Your task to perform on an android device: Show the shopping cart on bestbuy.com. Add usb-a to the cart on bestbuy.com, then select checkout. Image 0: 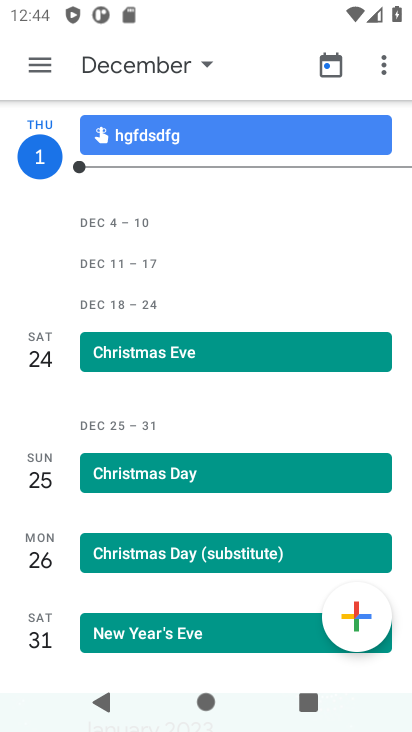
Step 0: press home button
Your task to perform on an android device: Show the shopping cart on bestbuy.com. Add usb-a to the cart on bestbuy.com, then select checkout. Image 1: 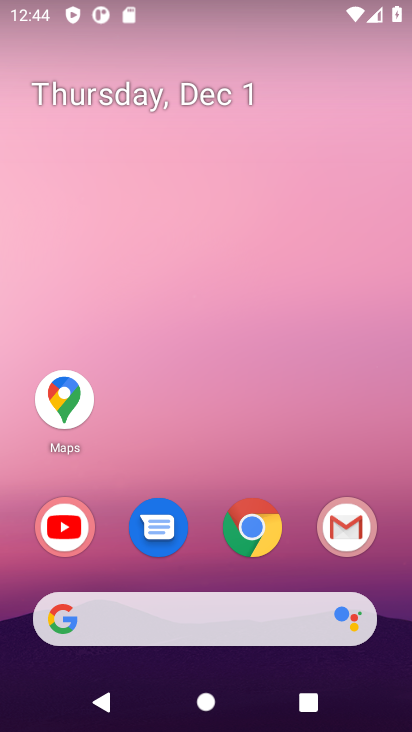
Step 1: click (259, 529)
Your task to perform on an android device: Show the shopping cart on bestbuy.com. Add usb-a to the cart on bestbuy.com, then select checkout. Image 2: 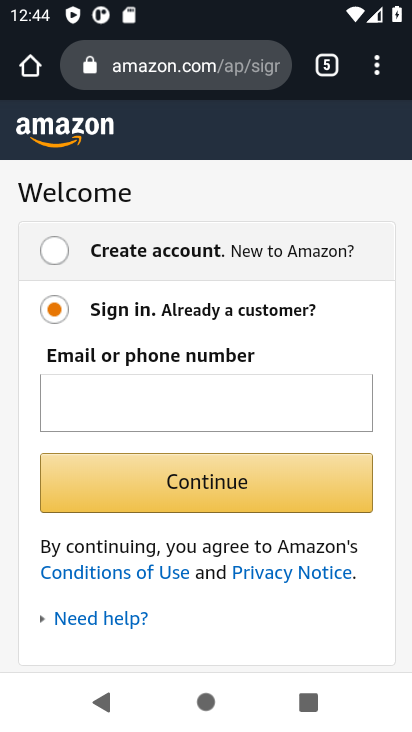
Step 2: click (202, 77)
Your task to perform on an android device: Show the shopping cart on bestbuy.com. Add usb-a to the cart on bestbuy.com, then select checkout. Image 3: 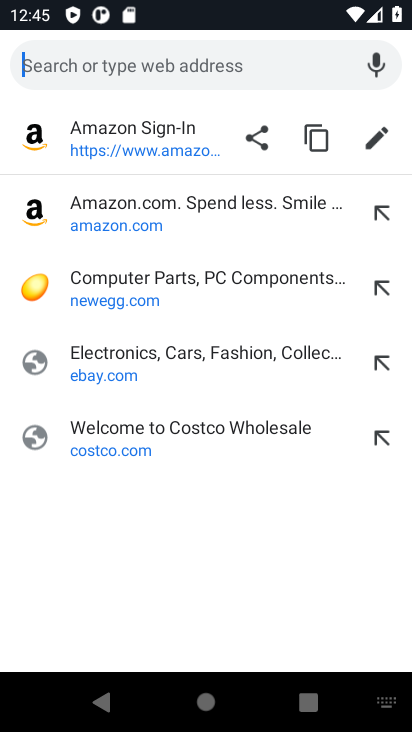
Step 3: type "bestbuy.com"
Your task to perform on an android device: Show the shopping cart on bestbuy.com. Add usb-a to the cart on bestbuy.com, then select checkout. Image 4: 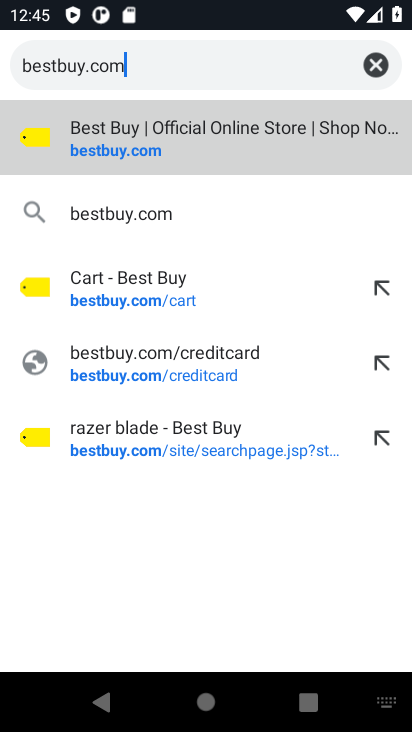
Step 4: click (104, 143)
Your task to perform on an android device: Show the shopping cart on bestbuy.com. Add usb-a to the cart on bestbuy.com, then select checkout. Image 5: 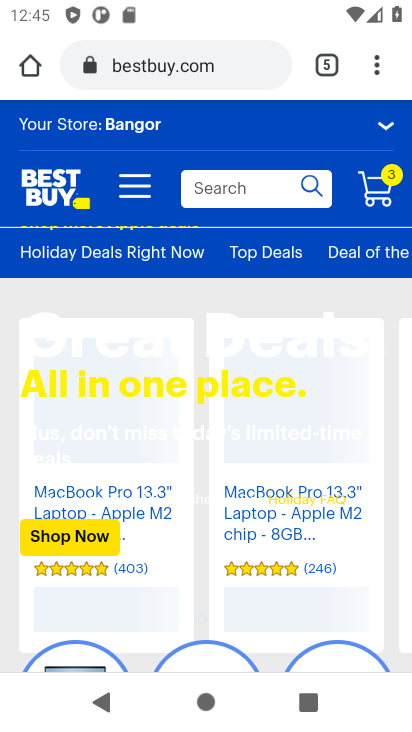
Step 5: click (377, 200)
Your task to perform on an android device: Show the shopping cart on bestbuy.com. Add usb-a to the cart on bestbuy.com, then select checkout. Image 6: 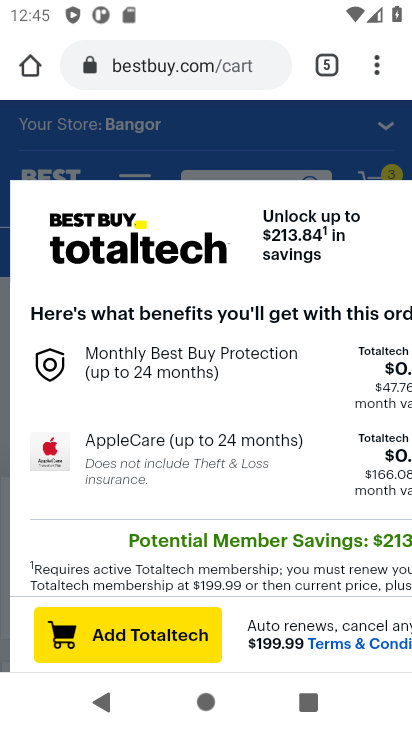
Step 6: click (251, 150)
Your task to perform on an android device: Show the shopping cart on bestbuy.com. Add usb-a to the cart on bestbuy.com, then select checkout. Image 7: 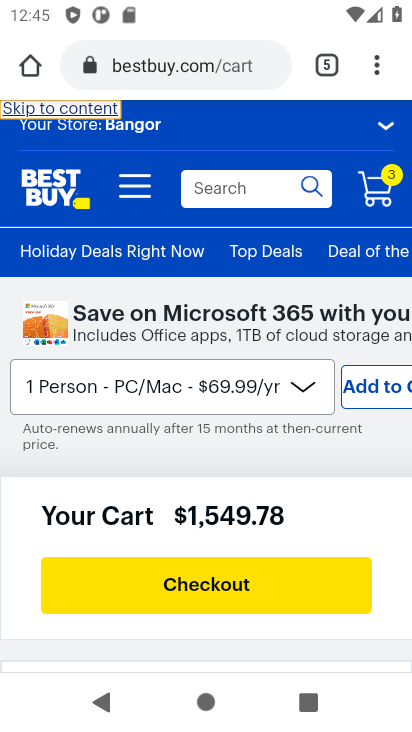
Step 7: click (237, 185)
Your task to perform on an android device: Show the shopping cart on bestbuy.com. Add usb-a to the cart on bestbuy.com, then select checkout. Image 8: 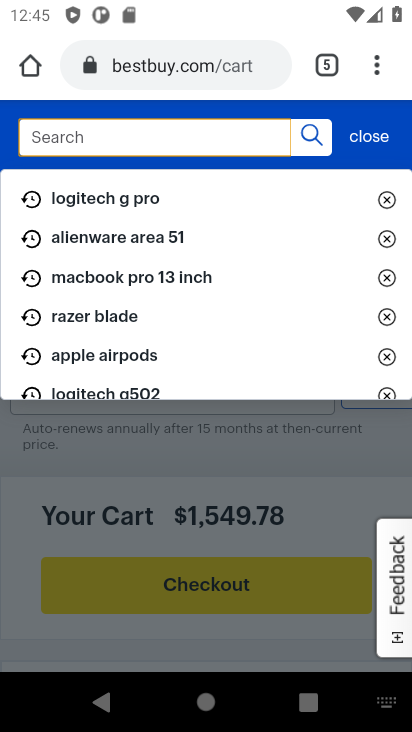
Step 8: type "usb-a"
Your task to perform on an android device: Show the shopping cart on bestbuy.com. Add usb-a to the cart on bestbuy.com, then select checkout. Image 9: 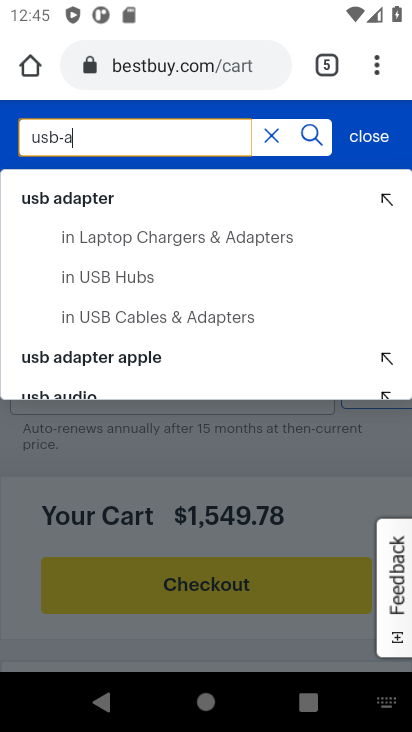
Step 9: click (303, 141)
Your task to perform on an android device: Show the shopping cart on bestbuy.com. Add usb-a to the cart on bestbuy.com, then select checkout. Image 10: 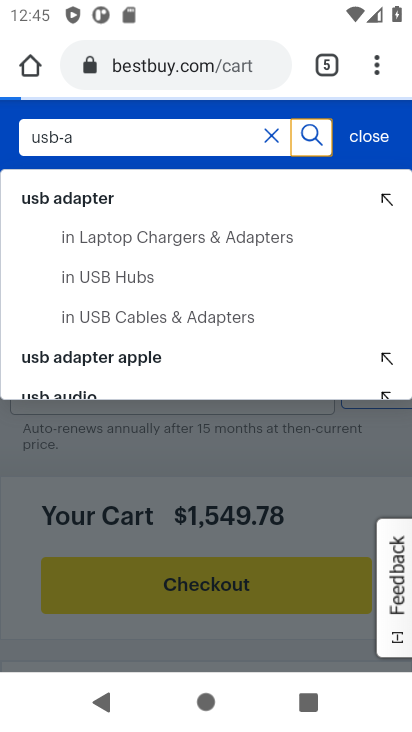
Step 10: click (303, 141)
Your task to perform on an android device: Show the shopping cart on bestbuy.com. Add usb-a to the cart on bestbuy.com, then select checkout. Image 11: 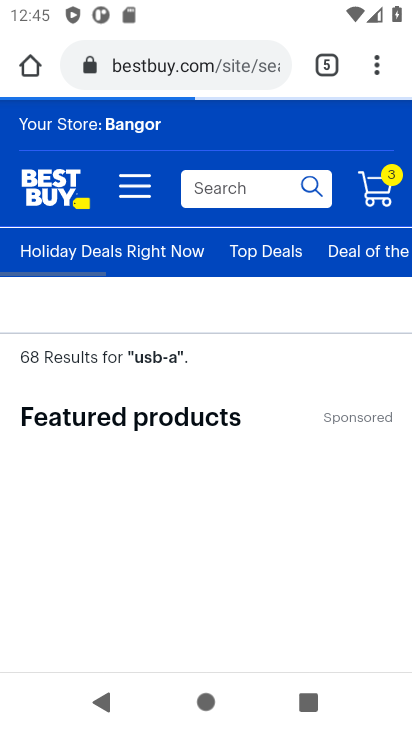
Step 11: click (303, 141)
Your task to perform on an android device: Show the shopping cart on bestbuy.com. Add usb-a to the cart on bestbuy.com, then select checkout. Image 12: 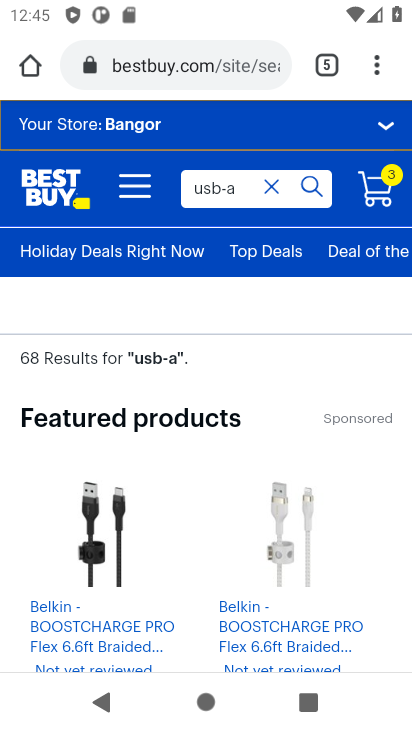
Step 12: drag from (194, 452) to (151, 111)
Your task to perform on an android device: Show the shopping cart on bestbuy.com. Add usb-a to the cart on bestbuy.com, then select checkout. Image 13: 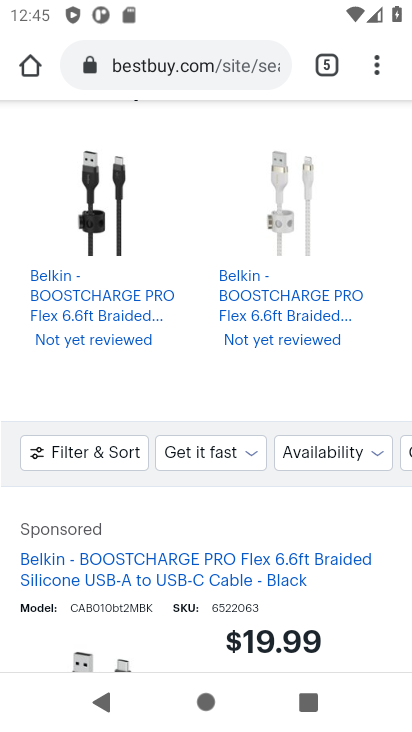
Step 13: drag from (185, 424) to (140, 109)
Your task to perform on an android device: Show the shopping cart on bestbuy.com. Add usb-a to the cart on bestbuy.com, then select checkout. Image 14: 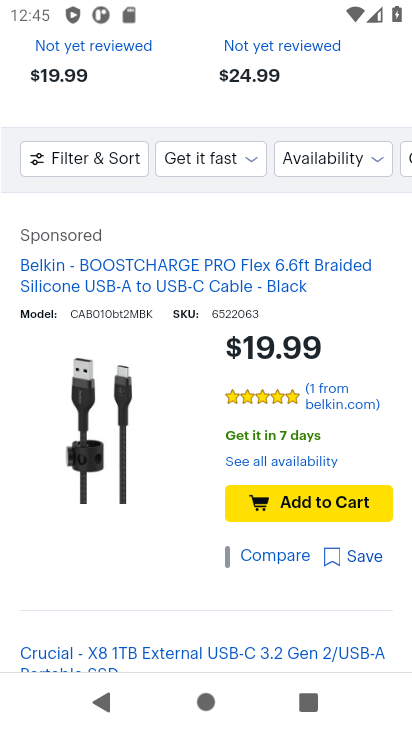
Step 14: click (259, 503)
Your task to perform on an android device: Show the shopping cart on bestbuy.com. Add usb-a to the cart on bestbuy.com, then select checkout. Image 15: 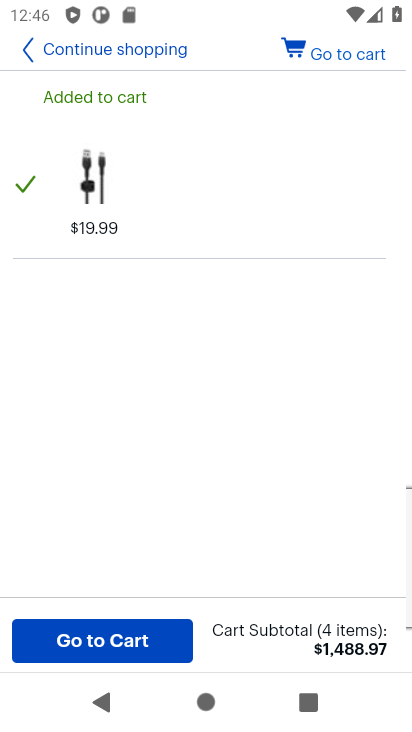
Step 15: click (335, 58)
Your task to perform on an android device: Show the shopping cart on bestbuy.com. Add usb-a to the cart on bestbuy.com, then select checkout. Image 16: 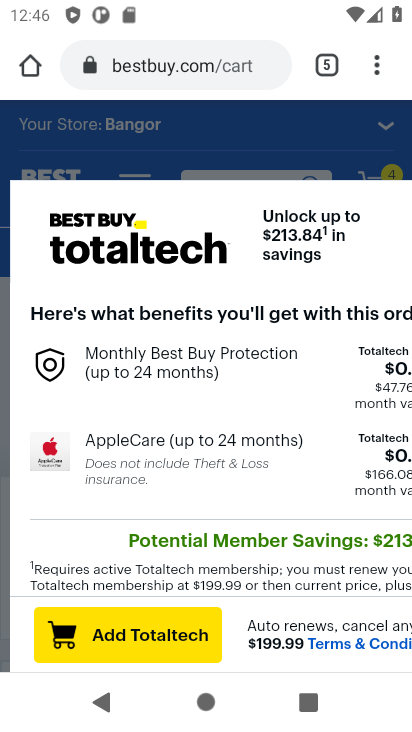
Step 16: click (255, 138)
Your task to perform on an android device: Show the shopping cart on bestbuy.com. Add usb-a to the cart on bestbuy.com, then select checkout. Image 17: 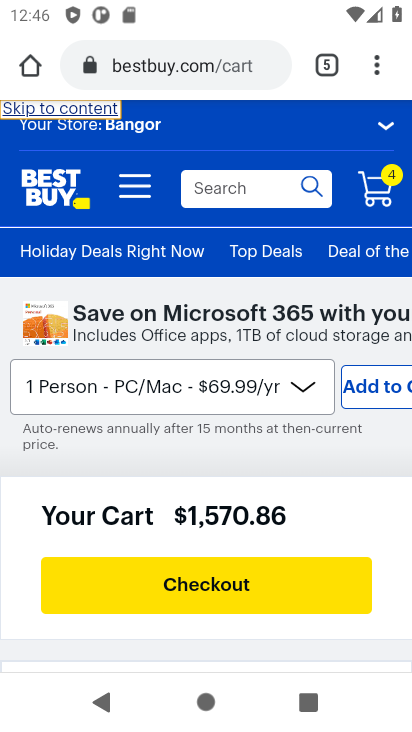
Step 17: click (198, 585)
Your task to perform on an android device: Show the shopping cart on bestbuy.com. Add usb-a to the cart on bestbuy.com, then select checkout. Image 18: 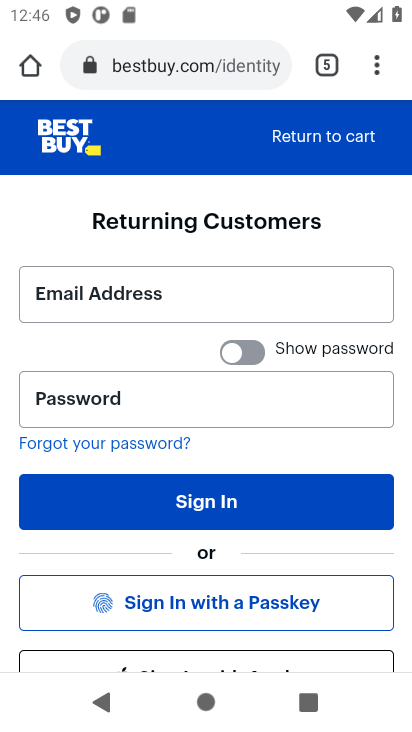
Step 18: task complete